Your task to perform on an android device: turn off smart reply in the gmail app Image 0: 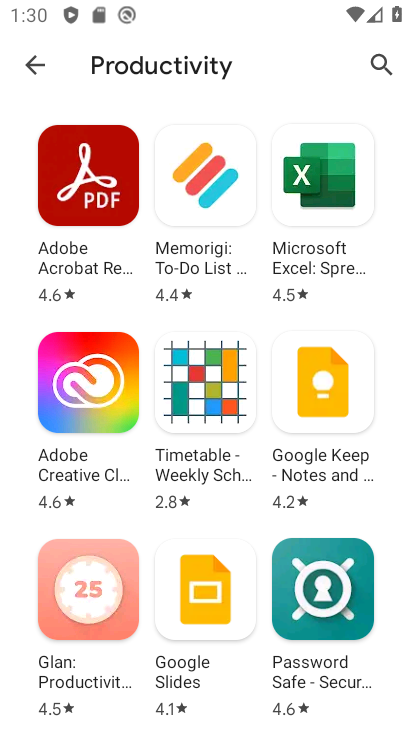
Step 0: press back button
Your task to perform on an android device: turn off smart reply in the gmail app Image 1: 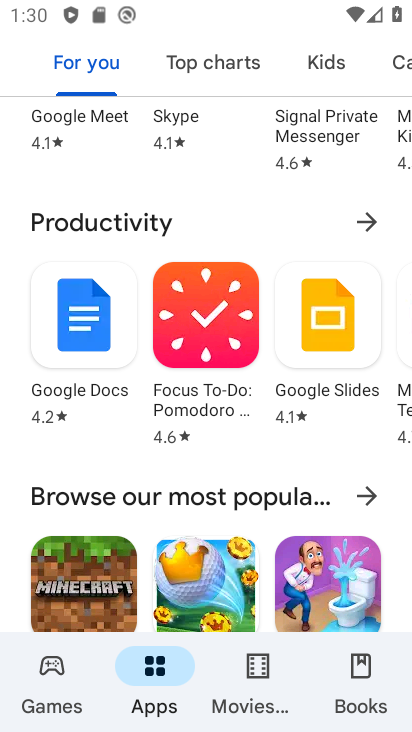
Step 1: press back button
Your task to perform on an android device: turn off smart reply in the gmail app Image 2: 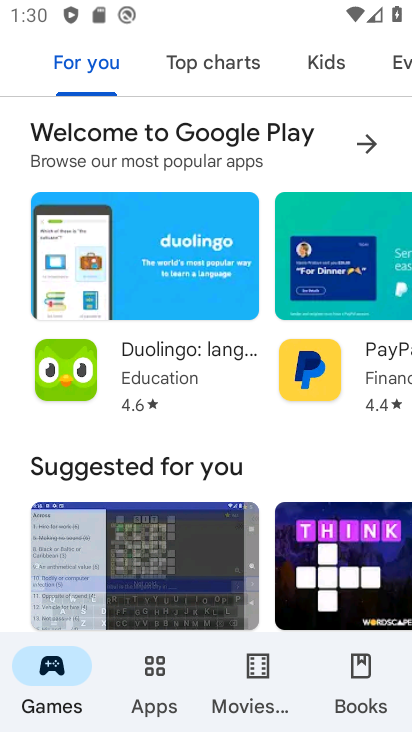
Step 2: press back button
Your task to perform on an android device: turn off smart reply in the gmail app Image 3: 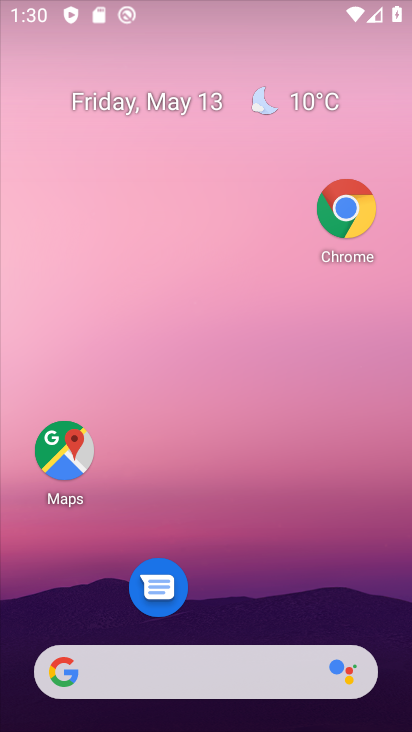
Step 3: drag from (227, 611) to (241, 33)
Your task to perform on an android device: turn off smart reply in the gmail app Image 4: 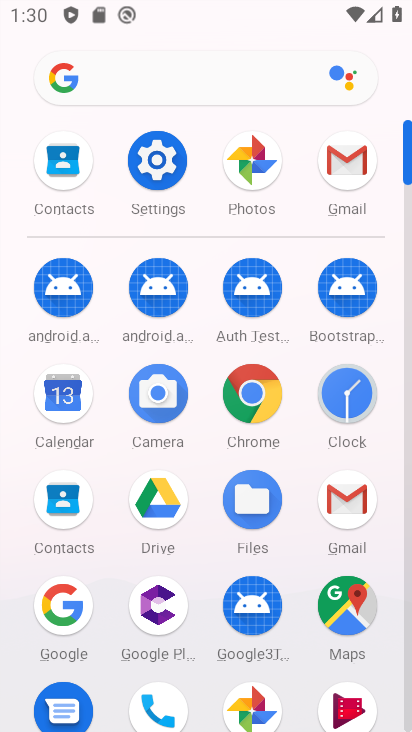
Step 4: click (350, 165)
Your task to perform on an android device: turn off smart reply in the gmail app Image 5: 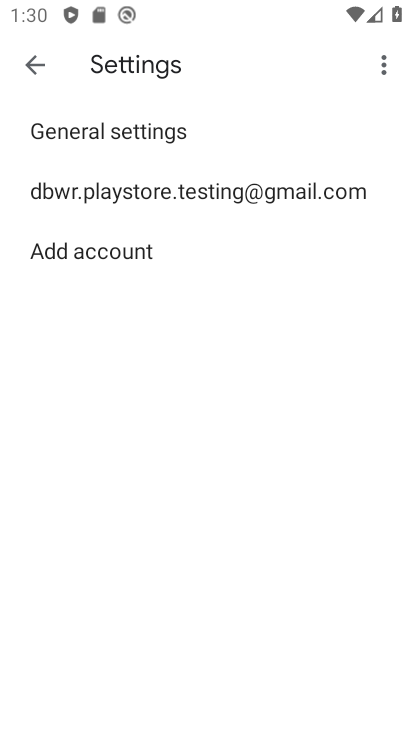
Step 5: click (211, 195)
Your task to perform on an android device: turn off smart reply in the gmail app Image 6: 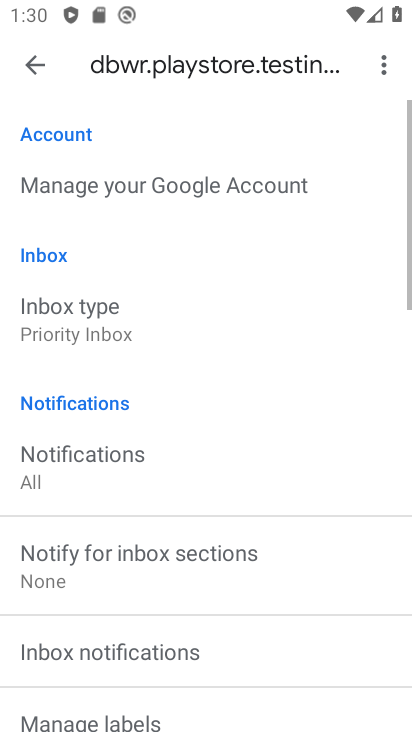
Step 6: drag from (180, 653) to (246, 8)
Your task to perform on an android device: turn off smart reply in the gmail app Image 7: 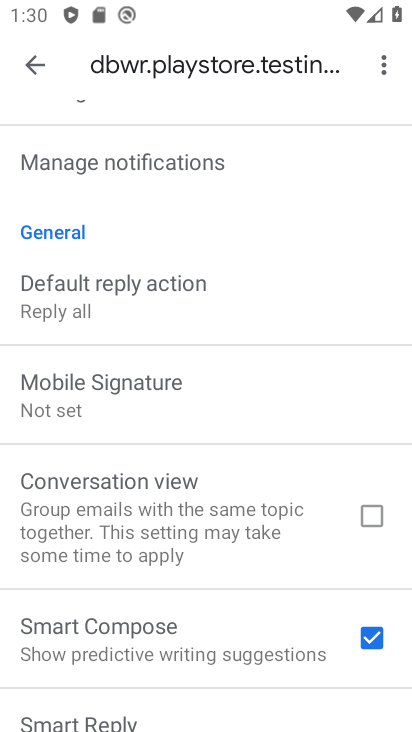
Step 7: click (239, 278)
Your task to perform on an android device: turn off smart reply in the gmail app Image 8: 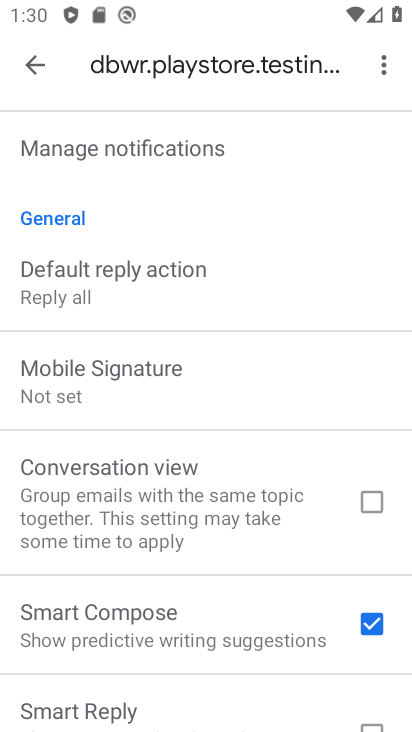
Step 8: drag from (222, 647) to (250, 292)
Your task to perform on an android device: turn off smart reply in the gmail app Image 9: 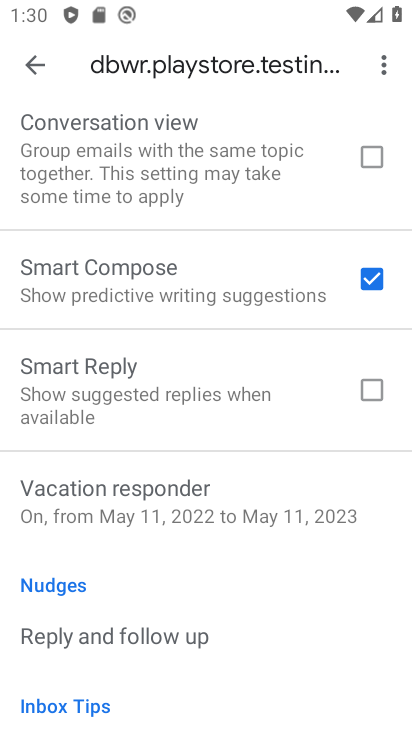
Step 9: click (382, 393)
Your task to perform on an android device: turn off smart reply in the gmail app Image 10: 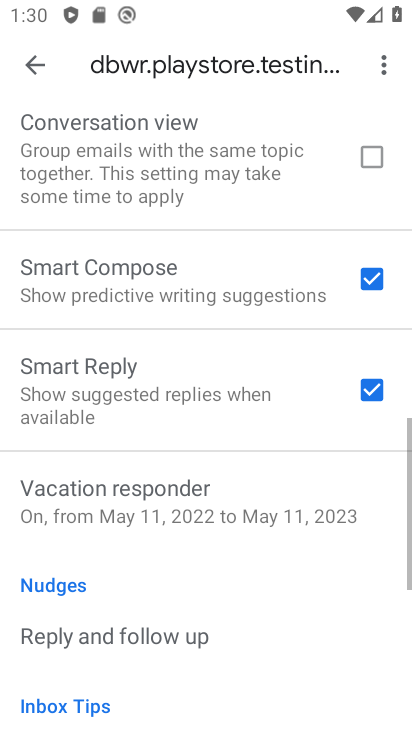
Step 10: click (378, 392)
Your task to perform on an android device: turn off smart reply in the gmail app Image 11: 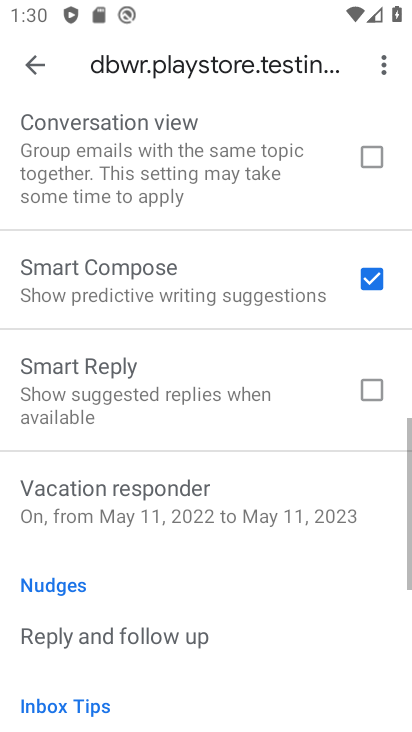
Step 11: task complete